Your task to perform on an android device: Open privacy settings Image 0: 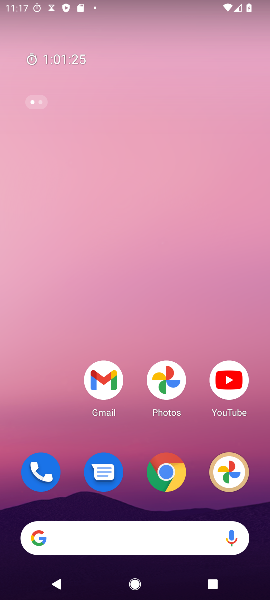
Step 0: press home button
Your task to perform on an android device: Open privacy settings Image 1: 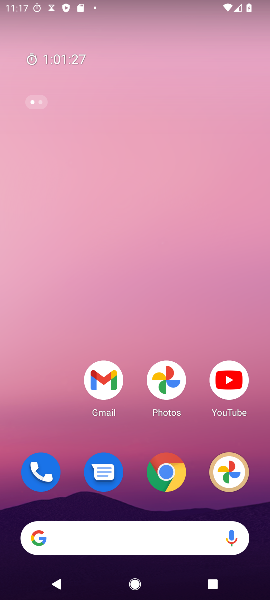
Step 1: drag from (198, 325) to (35, 239)
Your task to perform on an android device: Open privacy settings Image 2: 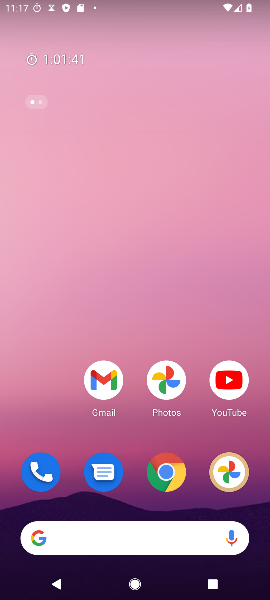
Step 2: drag from (198, 337) to (237, 4)
Your task to perform on an android device: Open privacy settings Image 3: 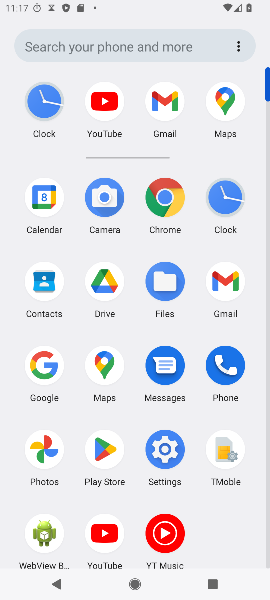
Step 3: click (171, 455)
Your task to perform on an android device: Open privacy settings Image 4: 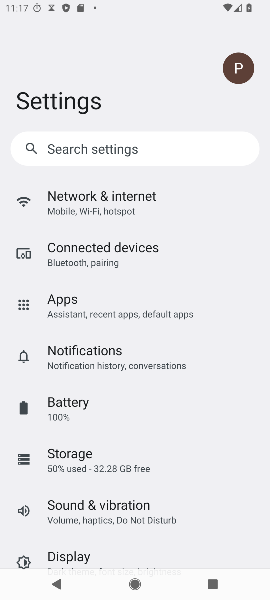
Step 4: drag from (197, 536) to (205, 172)
Your task to perform on an android device: Open privacy settings Image 5: 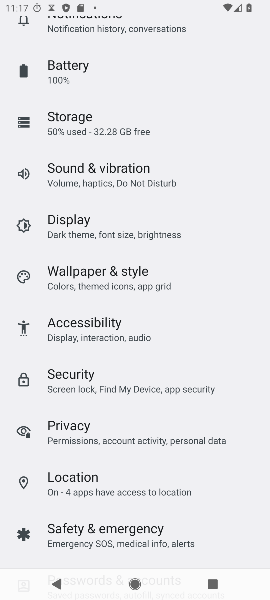
Step 5: click (181, 423)
Your task to perform on an android device: Open privacy settings Image 6: 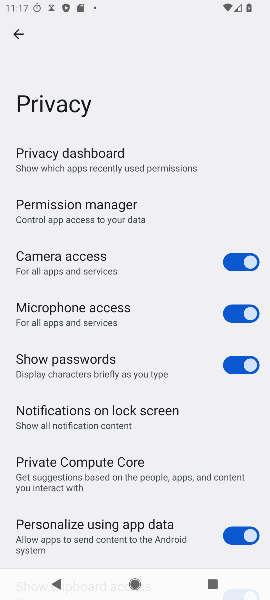
Step 6: task complete